Your task to perform on an android device: Go to CNN.com Image 0: 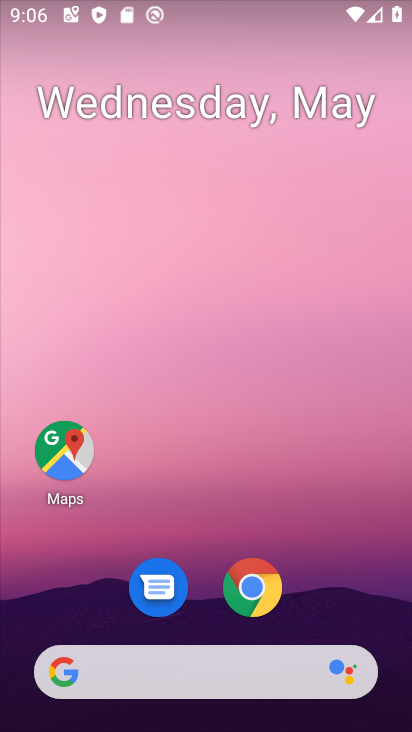
Step 0: click (252, 587)
Your task to perform on an android device: Go to CNN.com Image 1: 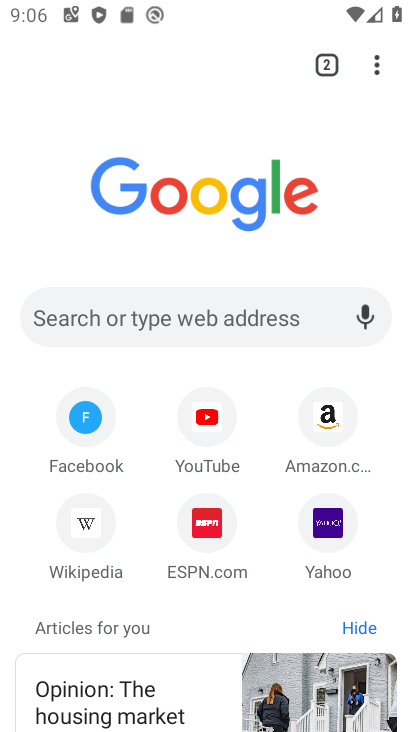
Step 1: click (228, 316)
Your task to perform on an android device: Go to CNN.com Image 2: 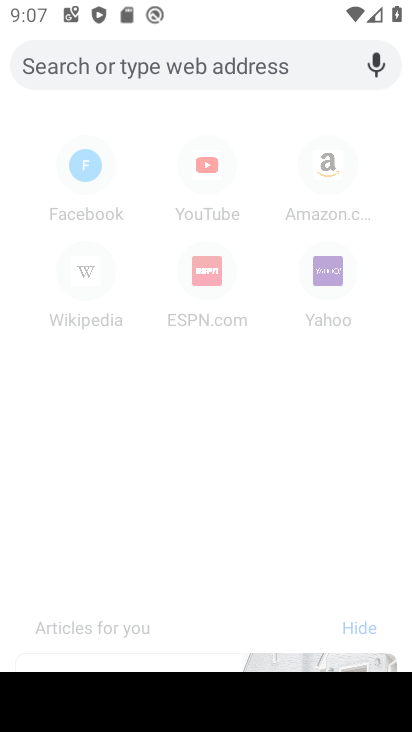
Step 2: type "CNN.com"
Your task to perform on an android device: Go to CNN.com Image 3: 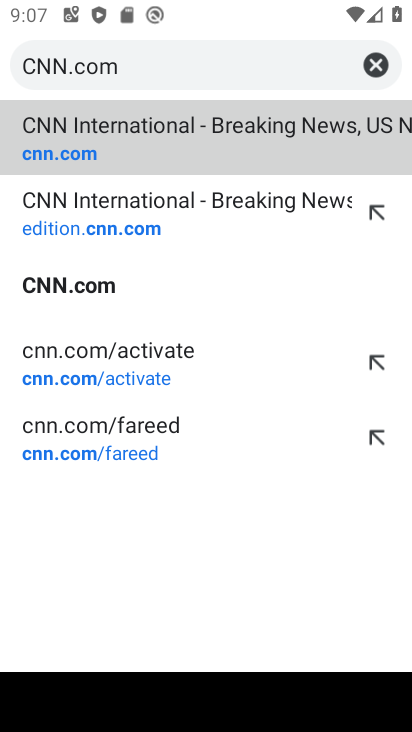
Step 3: click (130, 130)
Your task to perform on an android device: Go to CNN.com Image 4: 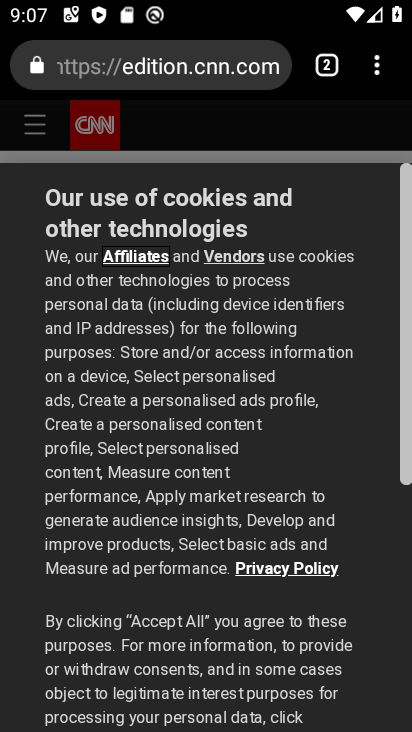
Step 4: task complete